Your task to perform on an android device: check storage Image 0: 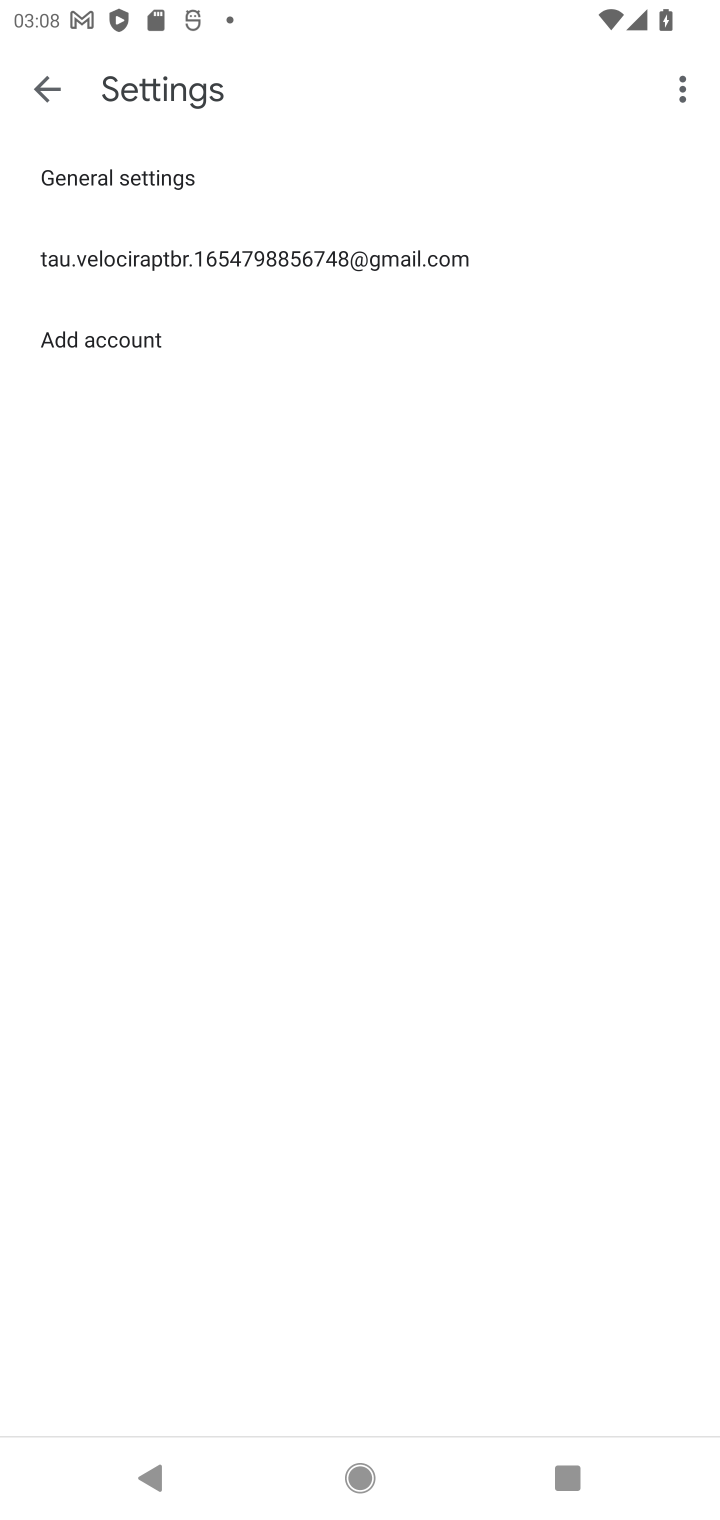
Step 0: press home button
Your task to perform on an android device: check storage Image 1: 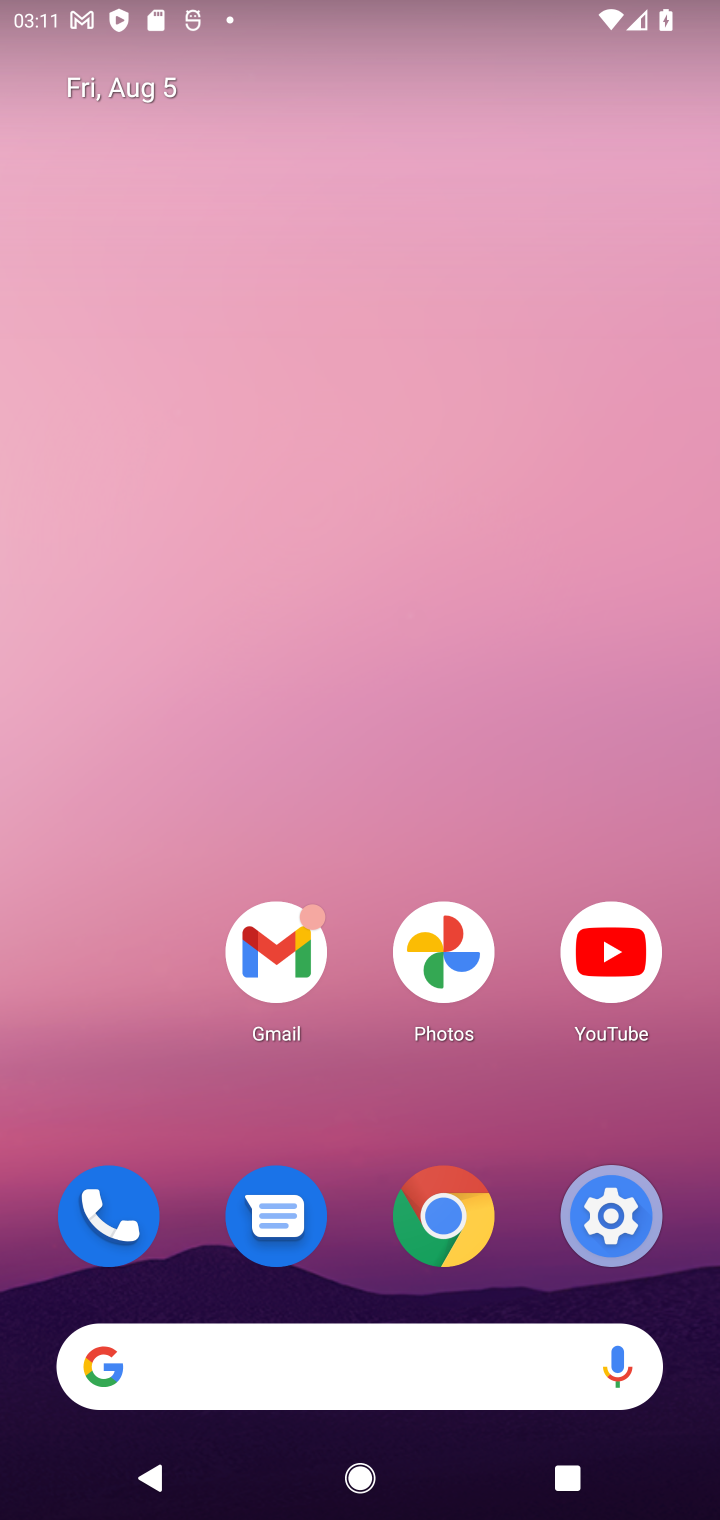
Step 1: click (615, 1254)
Your task to perform on an android device: check storage Image 2: 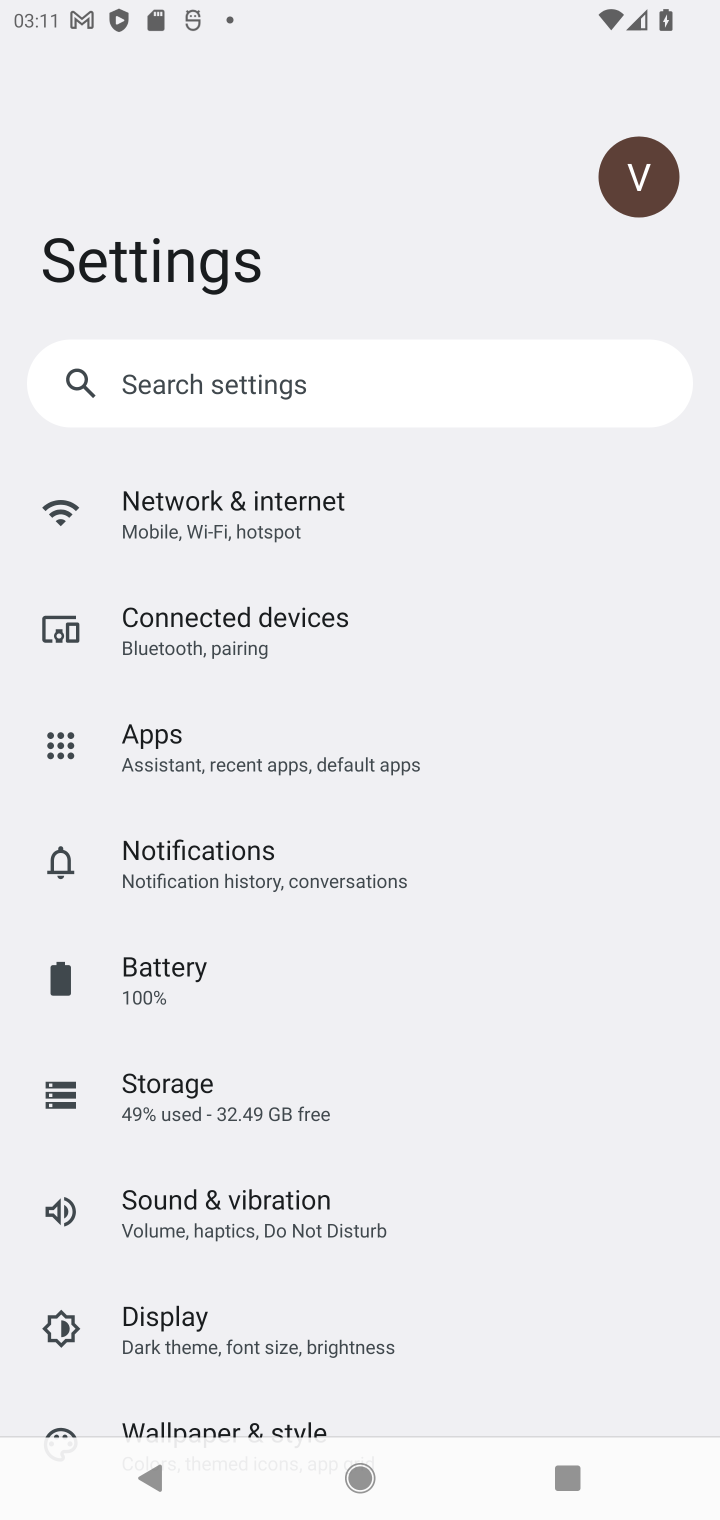
Step 2: click (274, 1093)
Your task to perform on an android device: check storage Image 3: 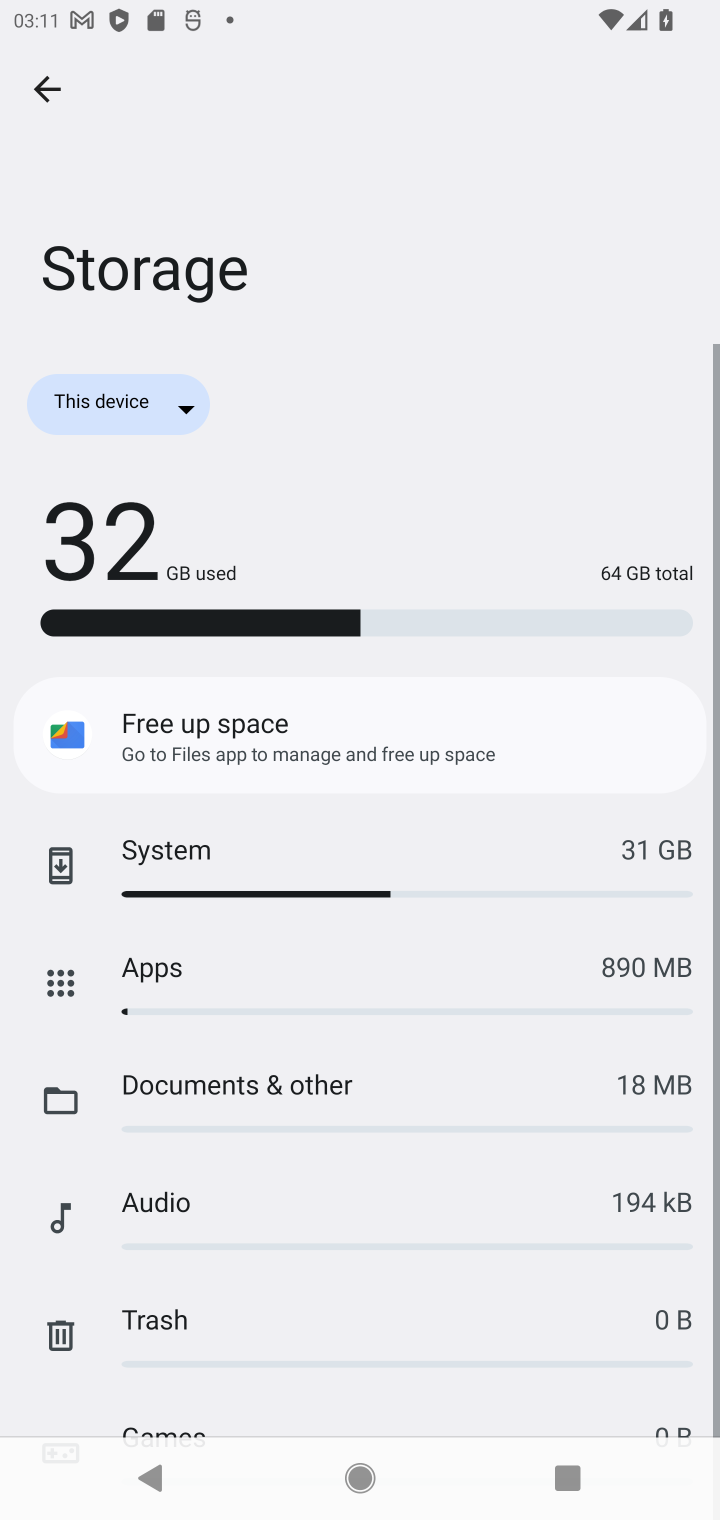
Step 3: task complete